Your task to perform on an android device: toggle javascript in the chrome app Image 0: 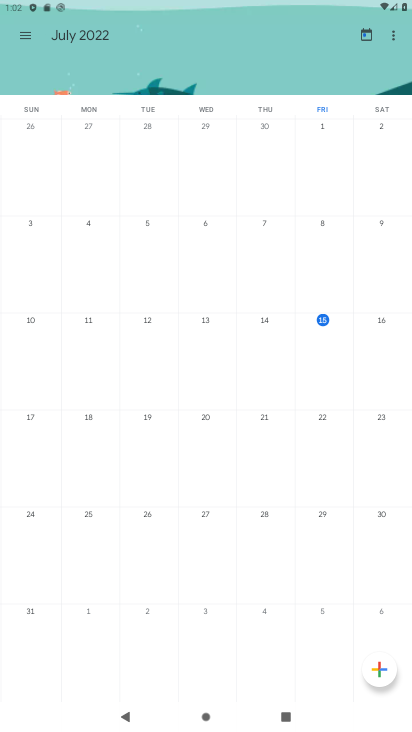
Step 0: drag from (262, 587) to (270, 212)
Your task to perform on an android device: toggle javascript in the chrome app Image 1: 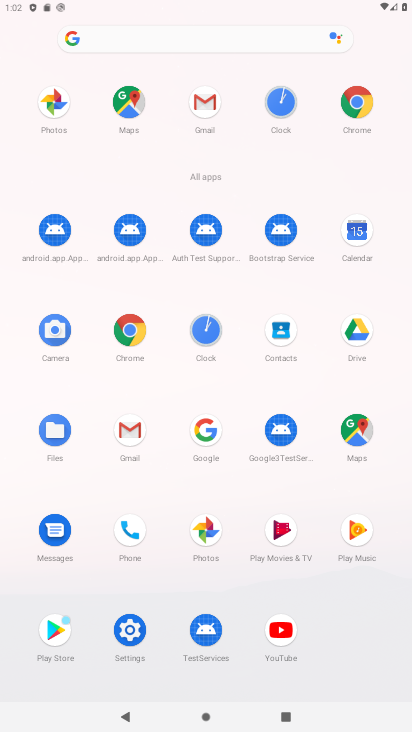
Step 1: click (360, 104)
Your task to perform on an android device: toggle javascript in the chrome app Image 2: 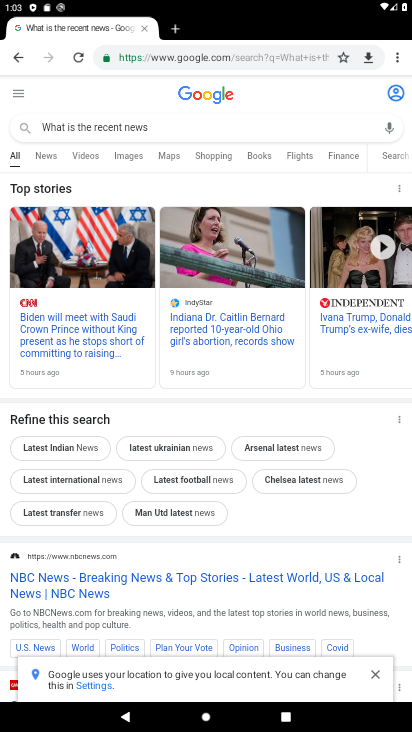
Step 2: click (399, 49)
Your task to perform on an android device: toggle javascript in the chrome app Image 3: 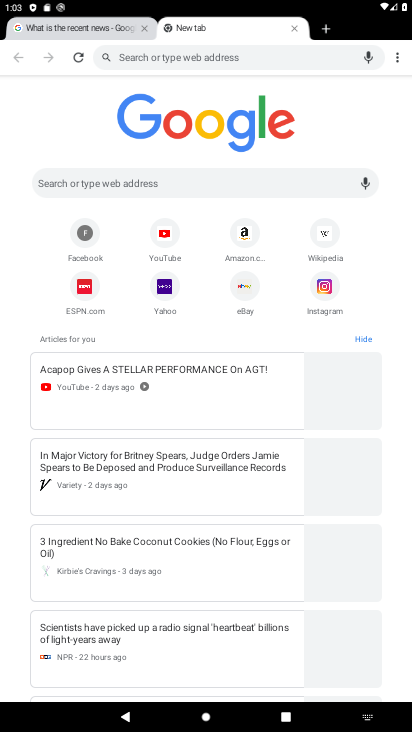
Step 3: click (392, 57)
Your task to perform on an android device: toggle javascript in the chrome app Image 4: 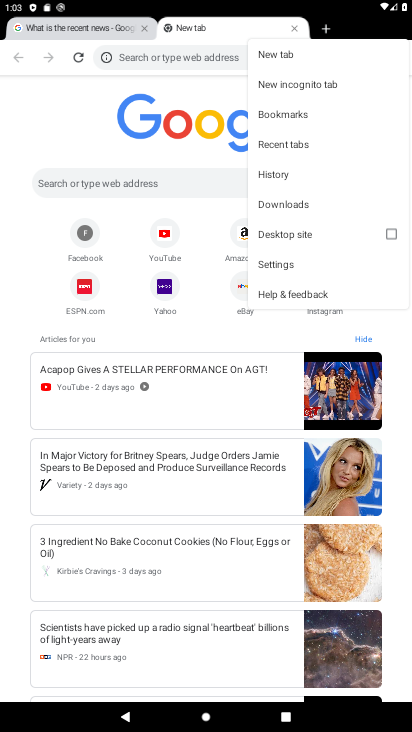
Step 4: click (292, 262)
Your task to perform on an android device: toggle javascript in the chrome app Image 5: 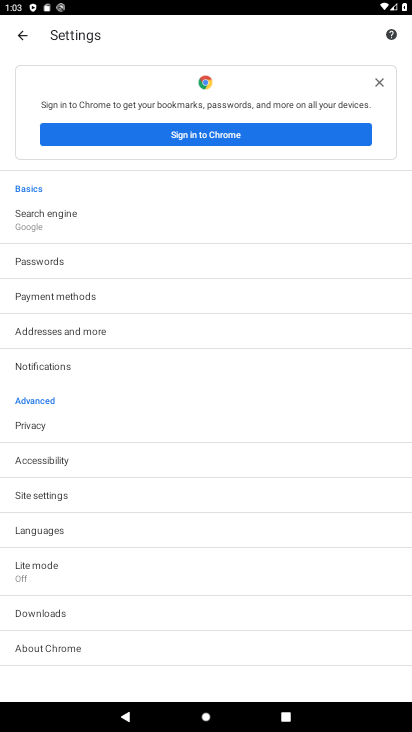
Step 5: click (74, 487)
Your task to perform on an android device: toggle javascript in the chrome app Image 6: 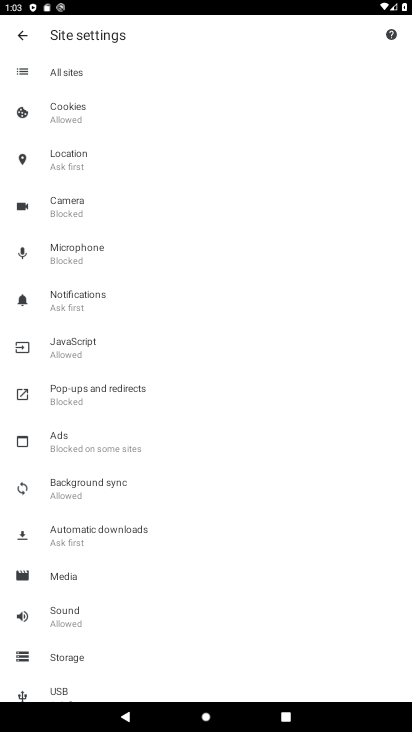
Step 6: click (91, 346)
Your task to perform on an android device: toggle javascript in the chrome app Image 7: 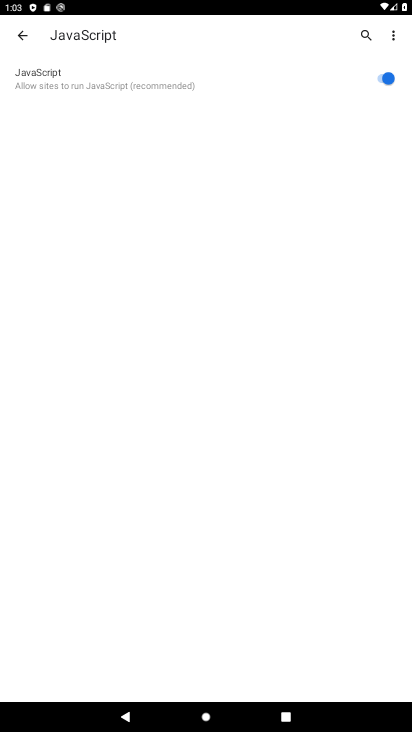
Step 7: click (372, 82)
Your task to perform on an android device: toggle javascript in the chrome app Image 8: 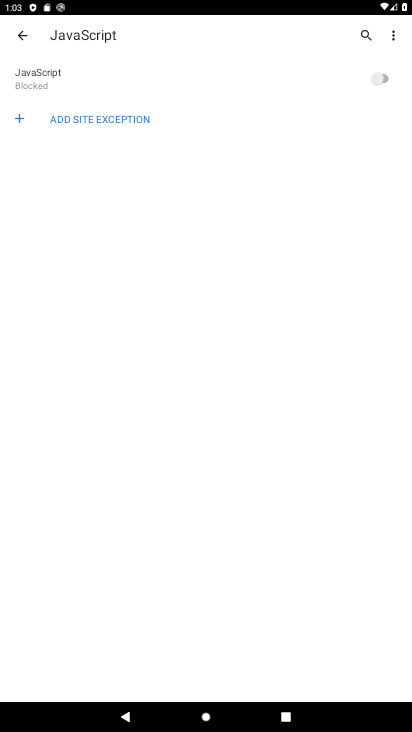
Step 8: task complete